Your task to perform on an android device: Go to settings Image 0: 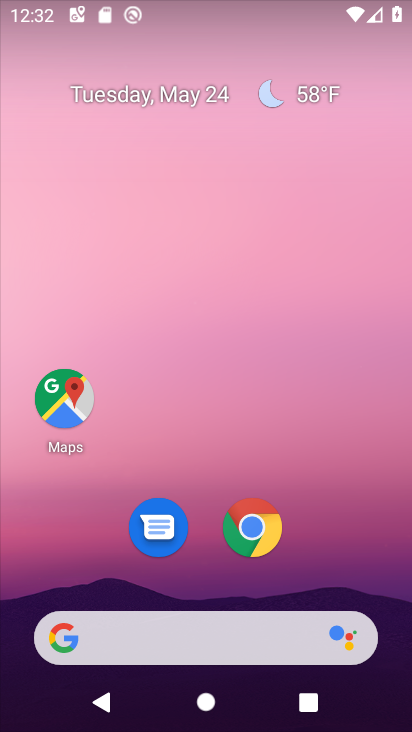
Step 0: drag from (377, 577) to (305, 114)
Your task to perform on an android device: Go to settings Image 1: 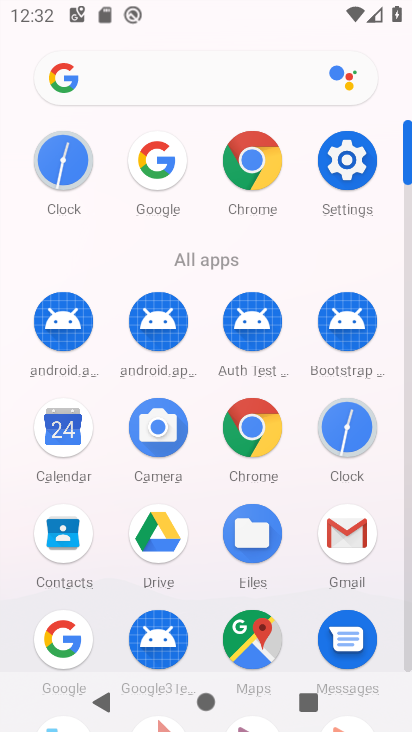
Step 1: click (345, 170)
Your task to perform on an android device: Go to settings Image 2: 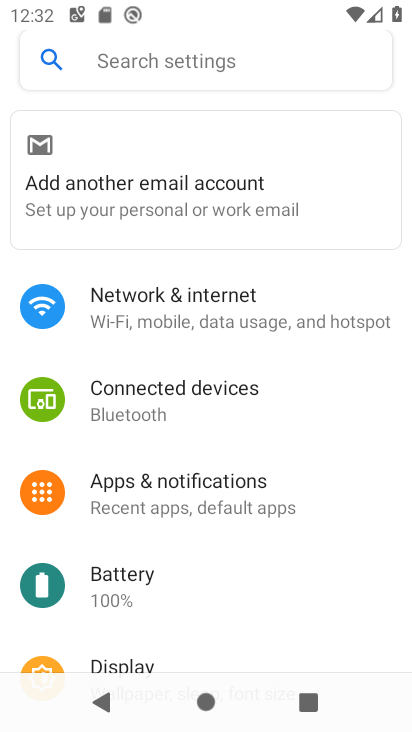
Step 2: task complete